Your task to perform on an android device: Open network settings Image 0: 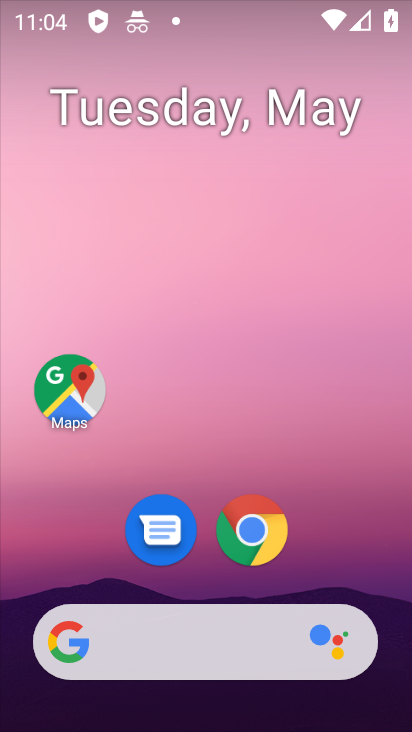
Step 0: drag from (330, 488) to (315, 168)
Your task to perform on an android device: Open network settings Image 1: 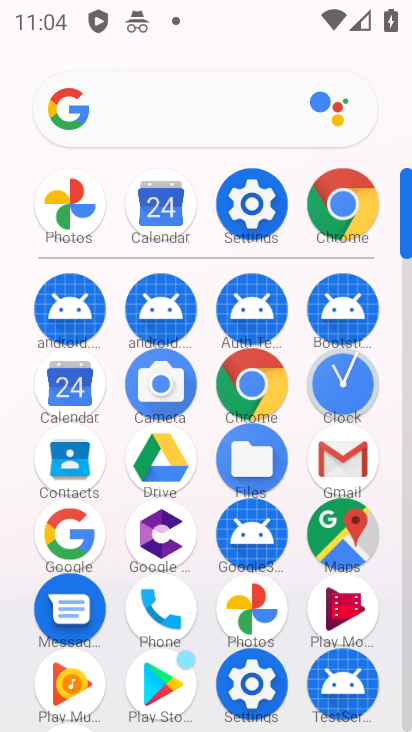
Step 1: click (257, 218)
Your task to perform on an android device: Open network settings Image 2: 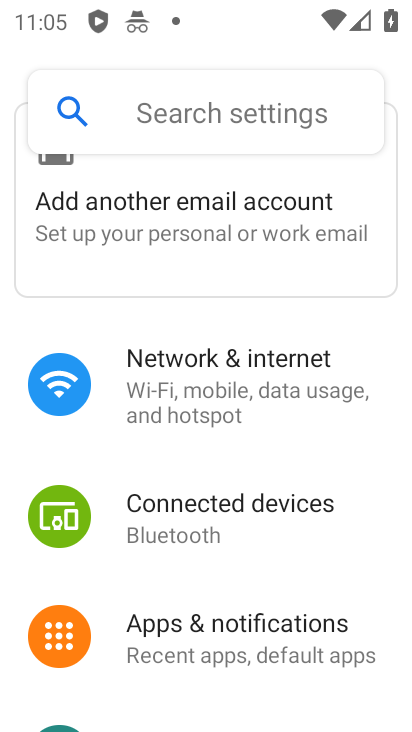
Step 2: click (220, 401)
Your task to perform on an android device: Open network settings Image 3: 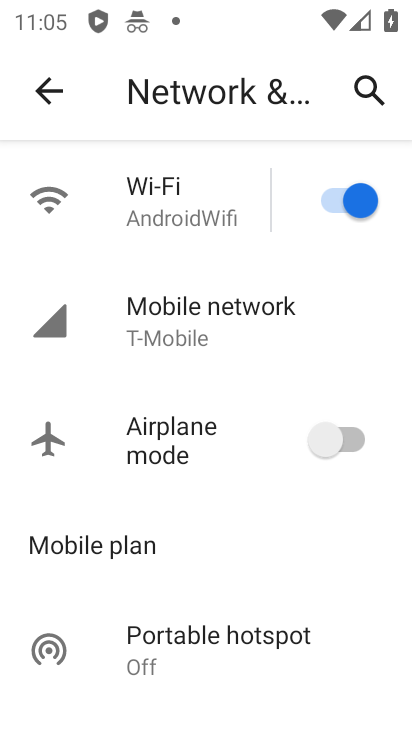
Step 3: task complete